Your task to perform on an android device: turn smart compose on in the gmail app Image 0: 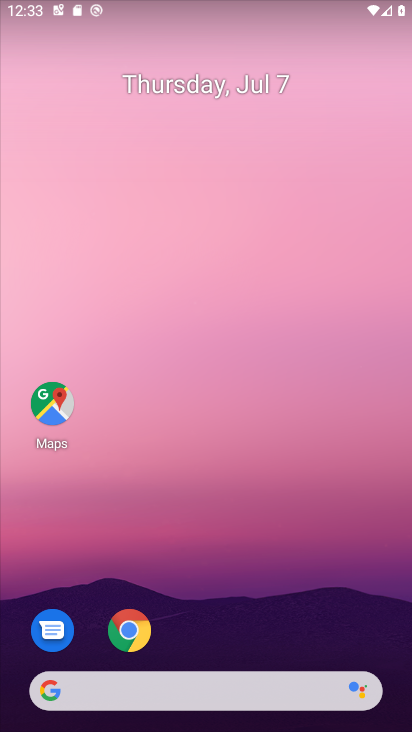
Step 0: drag from (243, 622) to (257, 259)
Your task to perform on an android device: turn smart compose on in the gmail app Image 1: 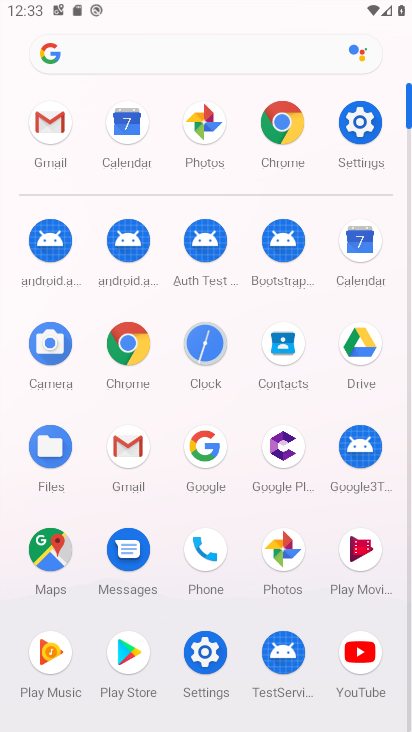
Step 1: click (52, 113)
Your task to perform on an android device: turn smart compose on in the gmail app Image 2: 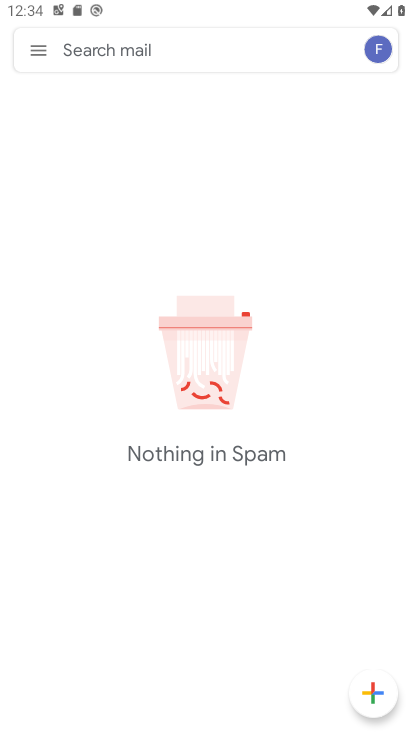
Step 2: click (386, 682)
Your task to perform on an android device: turn smart compose on in the gmail app Image 3: 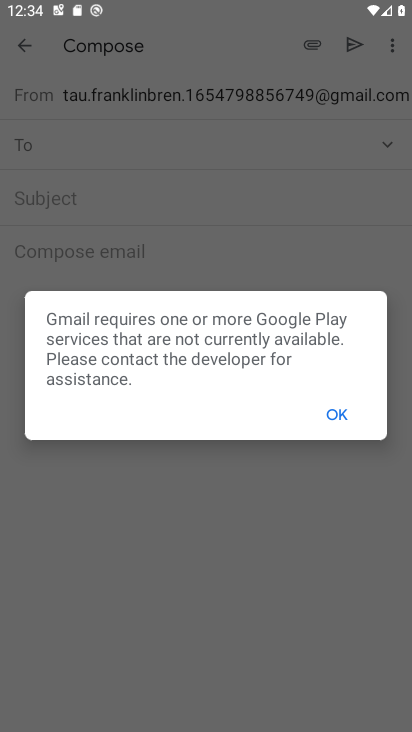
Step 3: click (331, 411)
Your task to perform on an android device: turn smart compose on in the gmail app Image 4: 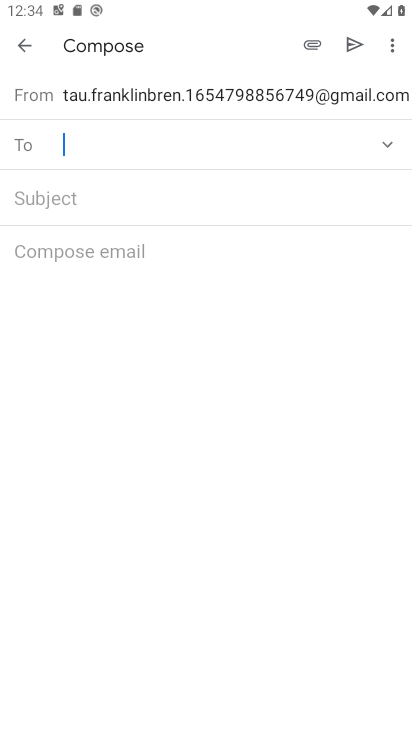
Step 4: task complete